Your task to perform on an android device: Open Reddit.com Image 0: 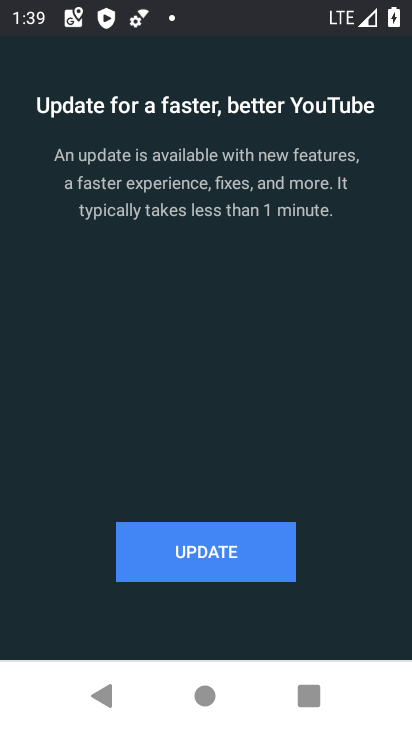
Step 0: press back button
Your task to perform on an android device: Open Reddit.com Image 1: 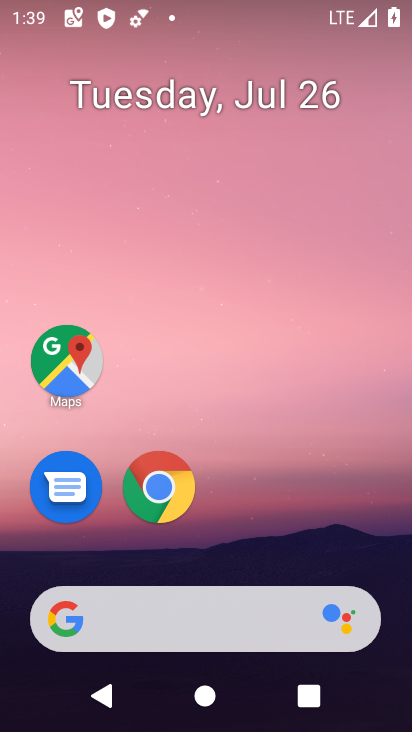
Step 1: click (162, 474)
Your task to perform on an android device: Open Reddit.com Image 2: 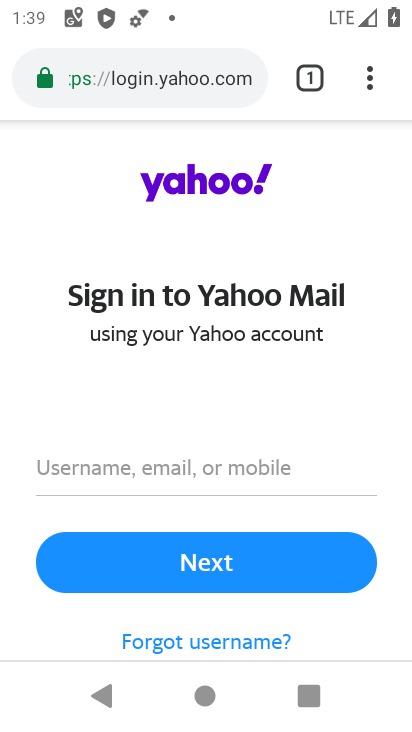
Step 2: click (195, 62)
Your task to perform on an android device: Open Reddit.com Image 3: 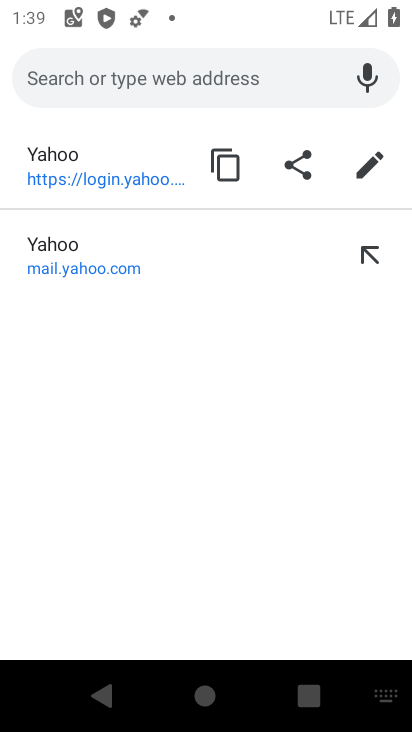
Step 3: type "reddit"
Your task to perform on an android device: Open Reddit.com Image 4: 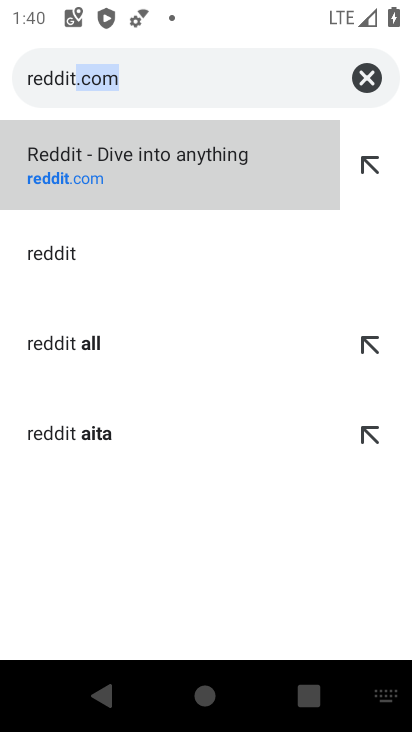
Step 4: click (47, 169)
Your task to perform on an android device: Open Reddit.com Image 5: 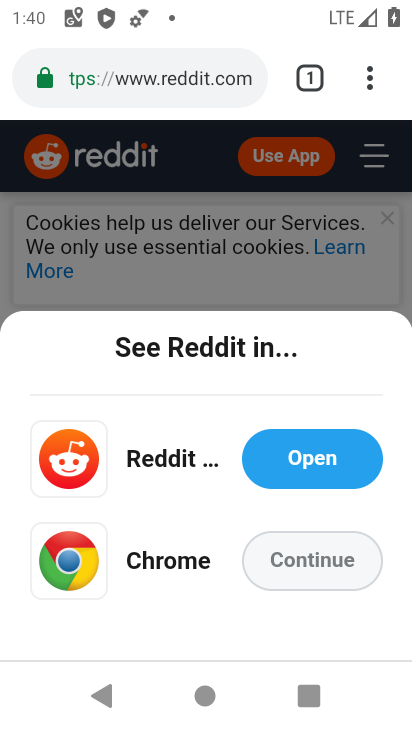
Step 5: task complete